Your task to perform on an android device: clear history in the chrome app Image 0: 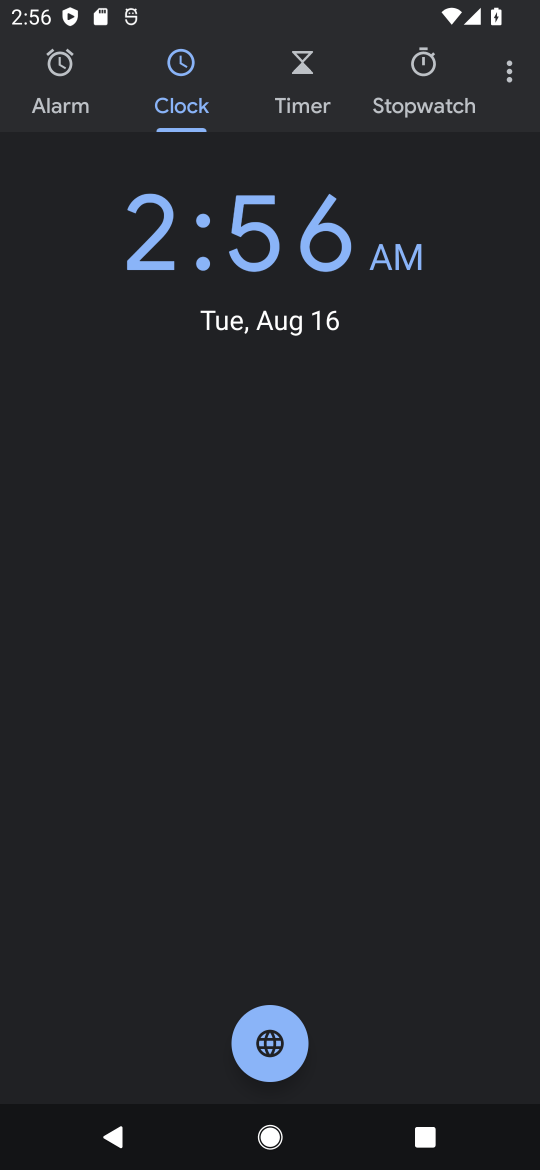
Step 0: press home button
Your task to perform on an android device: clear history in the chrome app Image 1: 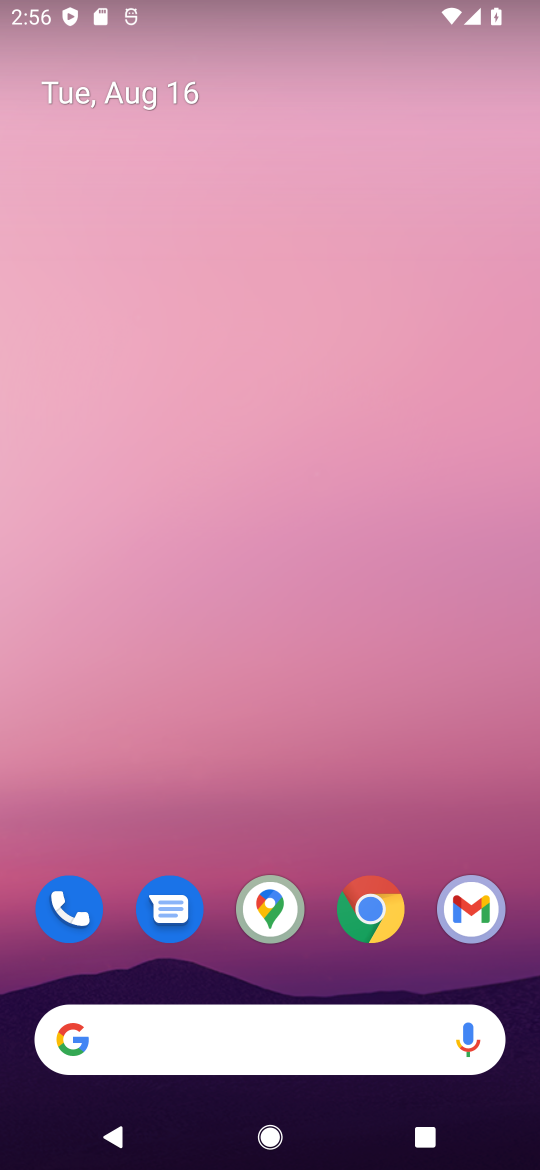
Step 1: click (367, 907)
Your task to perform on an android device: clear history in the chrome app Image 2: 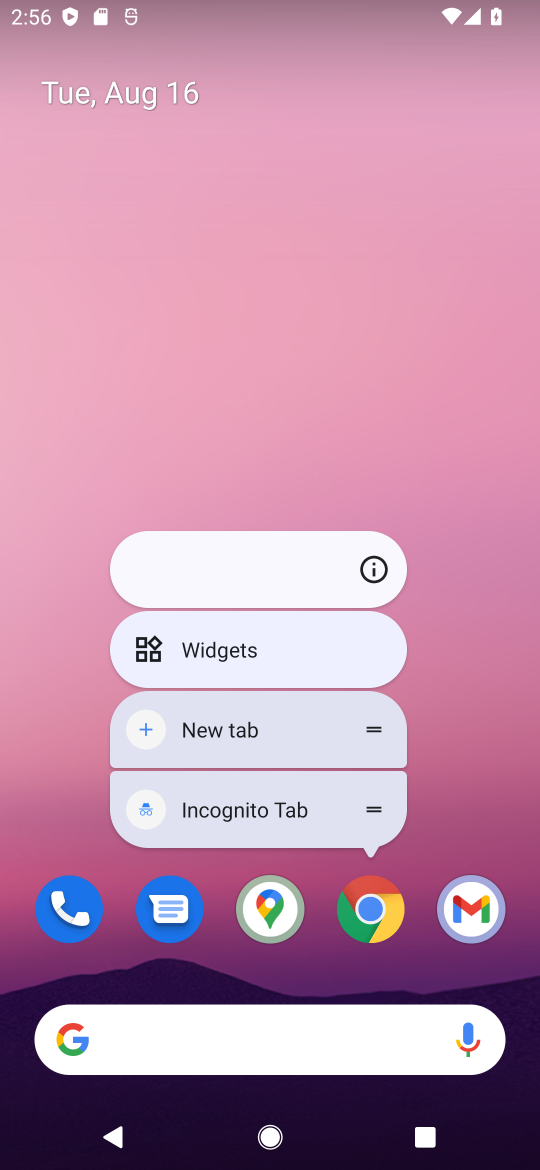
Step 2: click (377, 931)
Your task to perform on an android device: clear history in the chrome app Image 3: 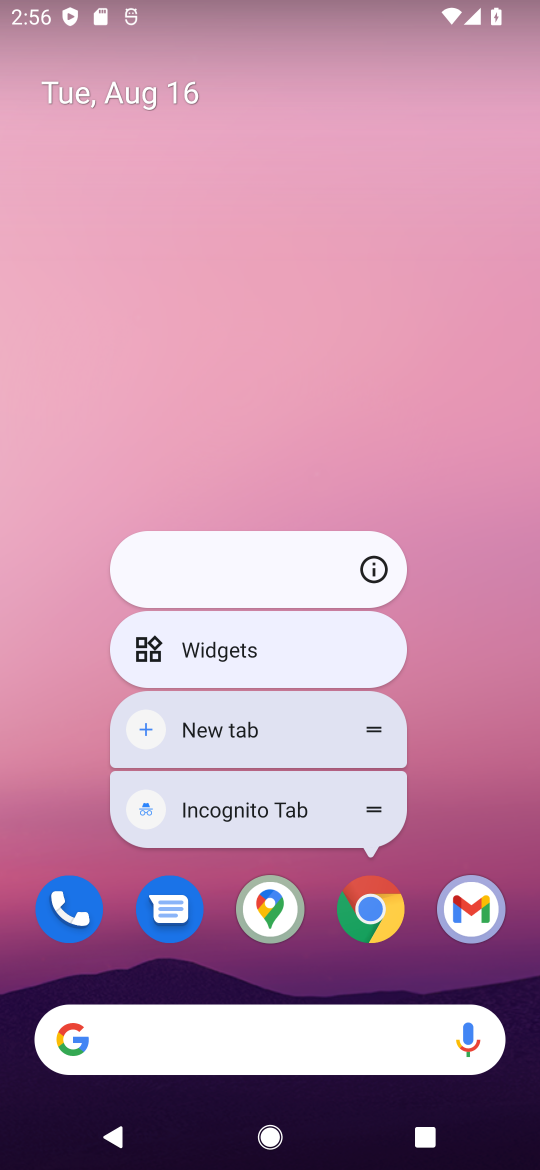
Step 3: click (364, 902)
Your task to perform on an android device: clear history in the chrome app Image 4: 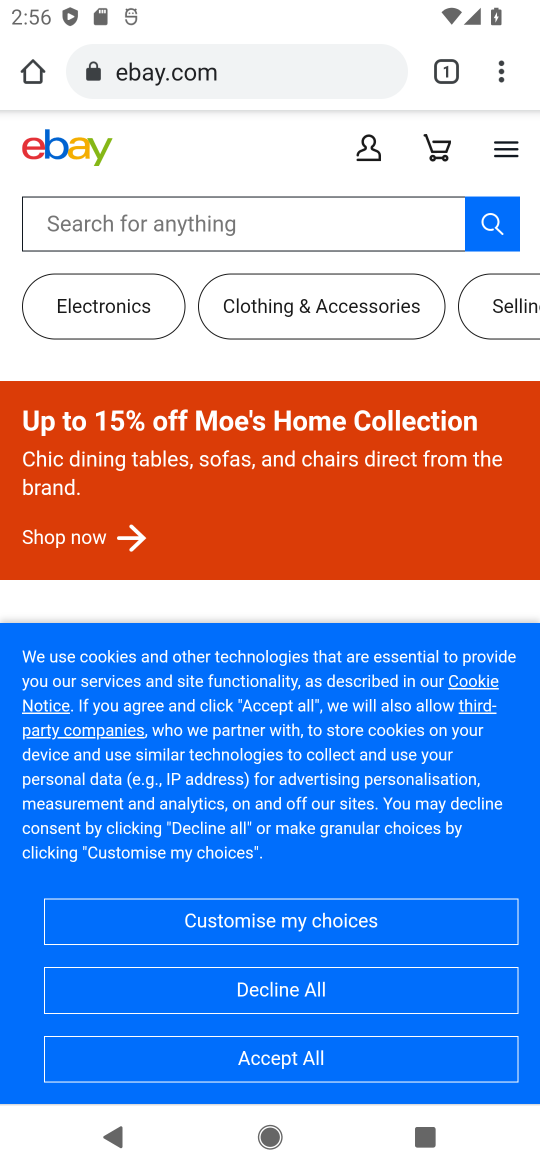
Step 4: click (503, 58)
Your task to perform on an android device: clear history in the chrome app Image 5: 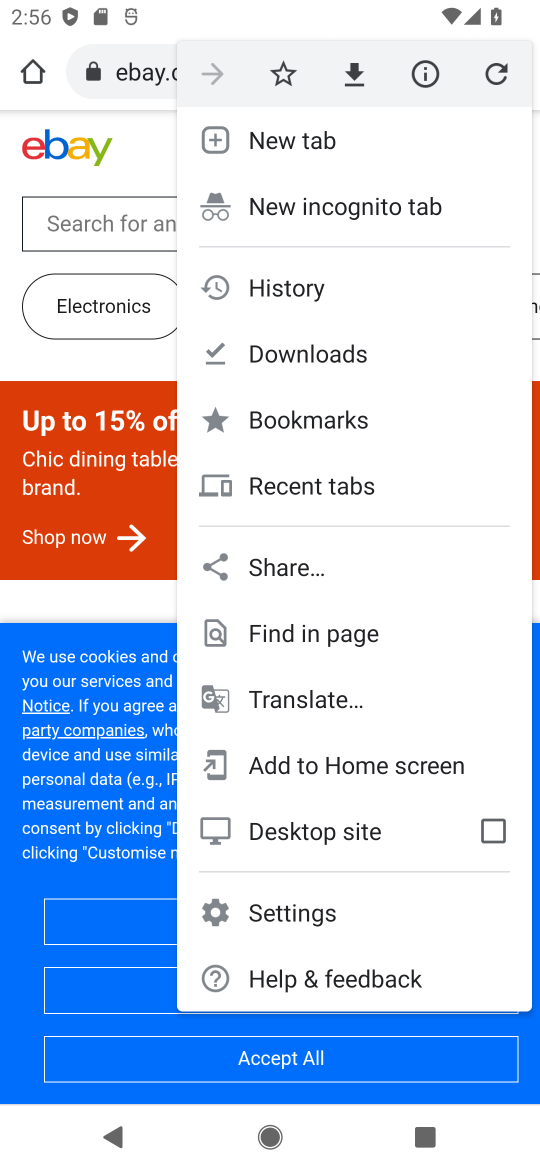
Step 5: click (260, 287)
Your task to perform on an android device: clear history in the chrome app Image 6: 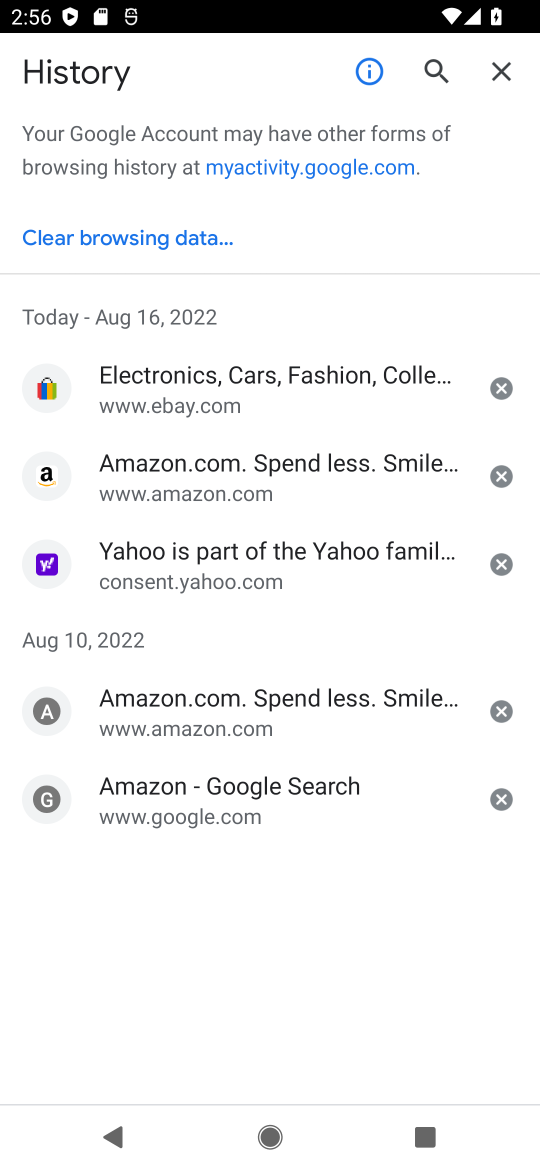
Step 6: click (190, 239)
Your task to perform on an android device: clear history in the chrome app Image 7: 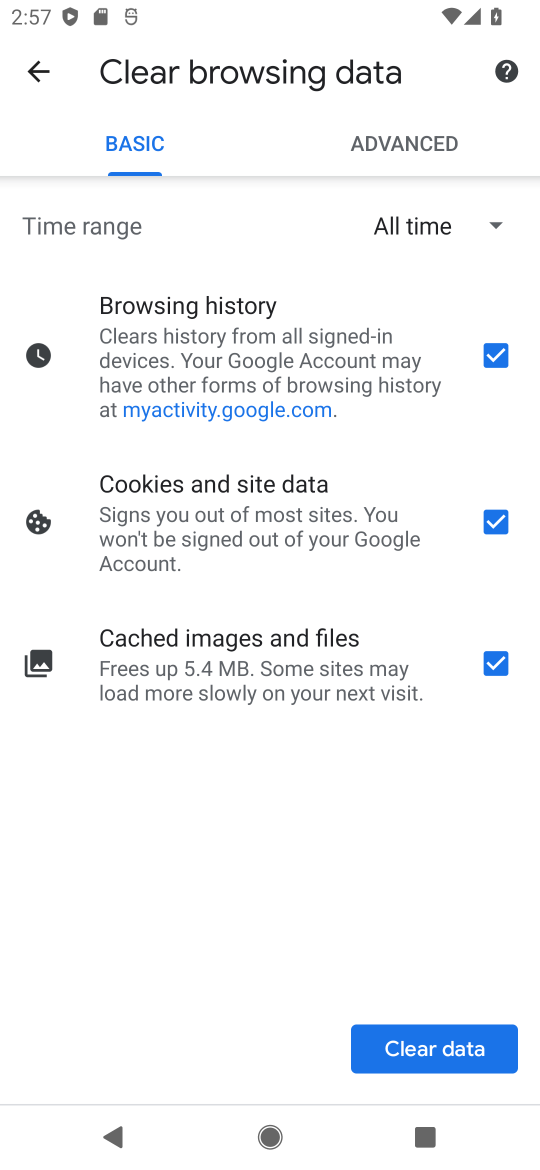
Step 7: click (444, 1042)
Your task to perform on an android device: clear history in the chrome app Image 8: 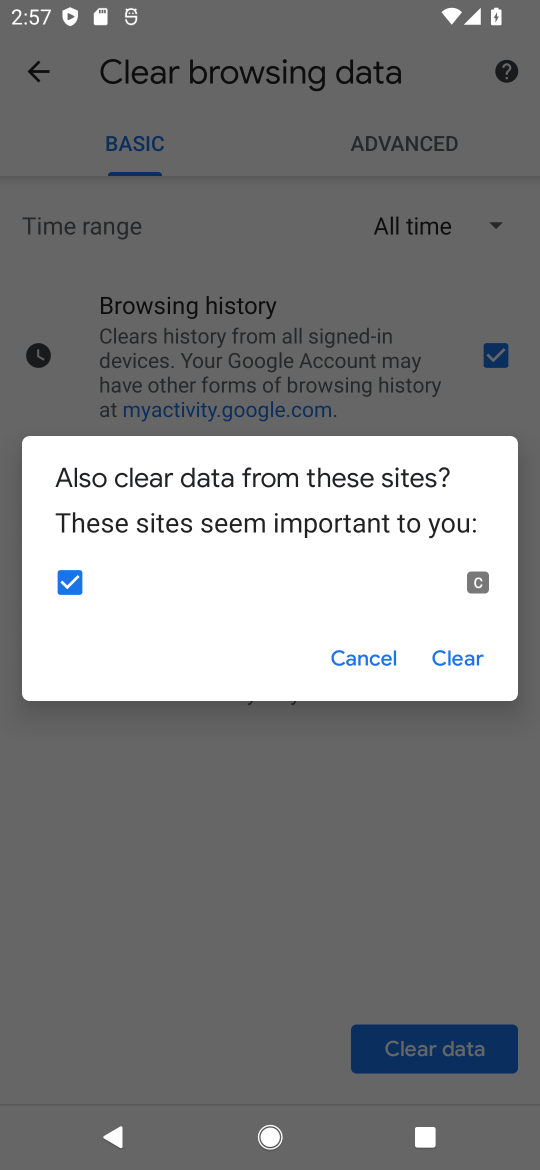
Step 8: click (464, 680)
Your task to perform on an android device: clear history in the chrome app Image 9: 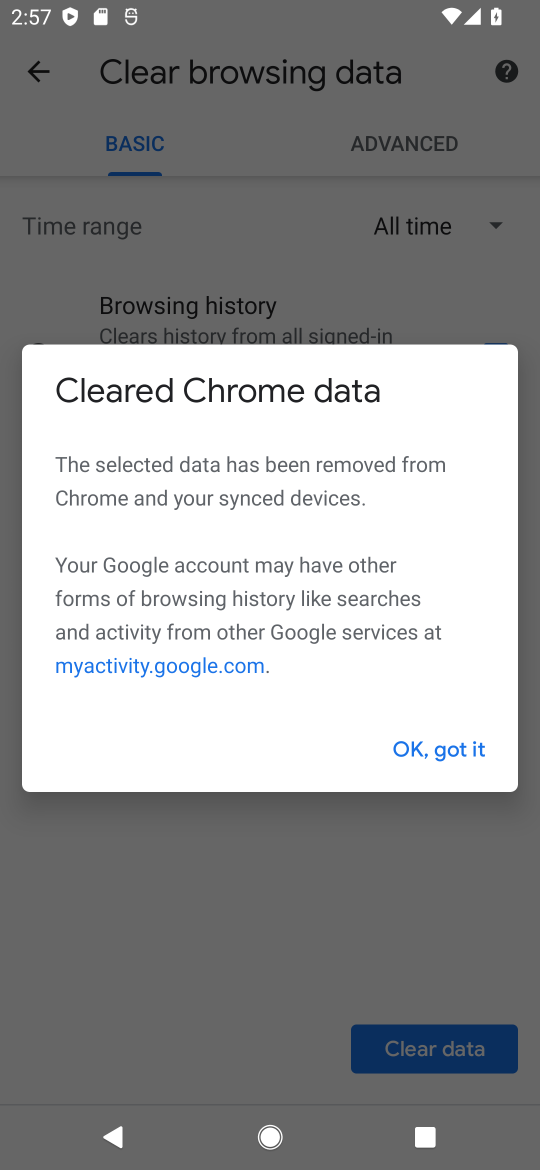
Step 9: click (450, 739)
Your task to perform on an android device: clear history in the chrome app Image 10: 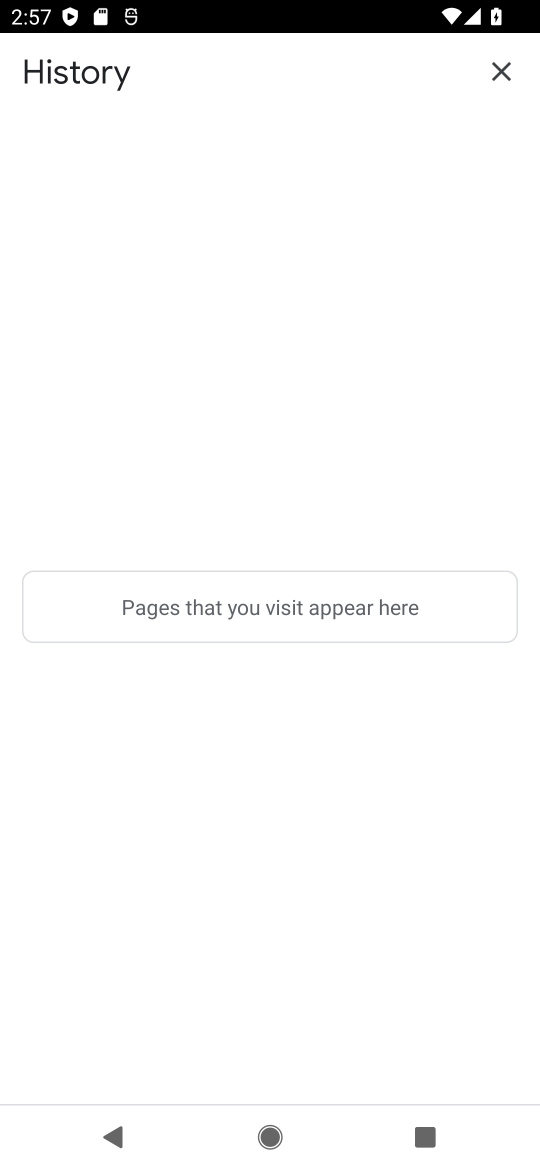
Step 10: task complete